Your task to perform on an android device: change alarm snooze length Image 0: 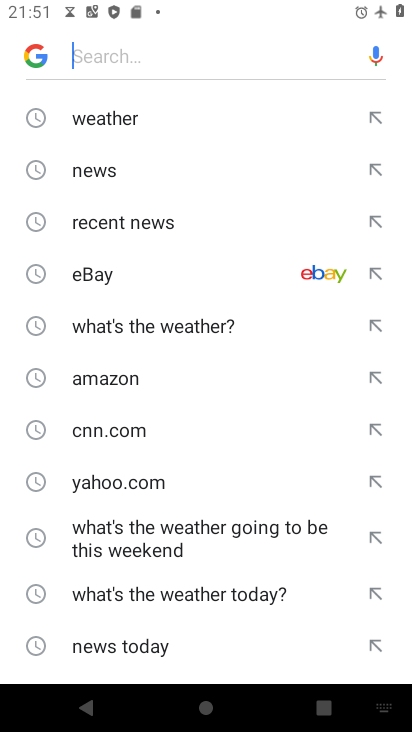
Step 0: press home button
Your task to perform on an android device: change alarm snooze length Image 1: 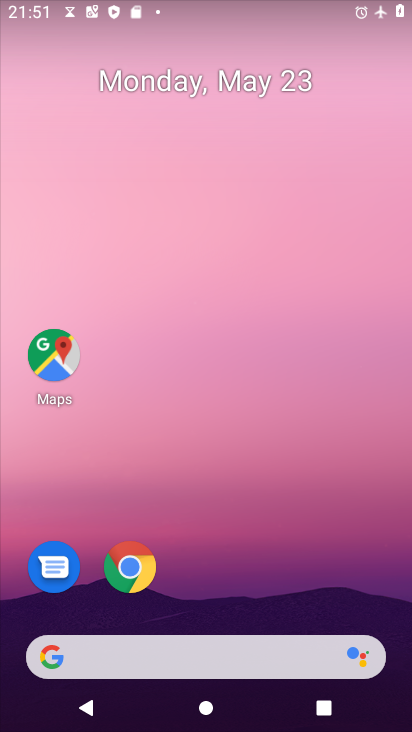
Step 1: drag from (248, 500) to (250, 301)
Your task to perform on an android device: change alarm snooze length Image 2: 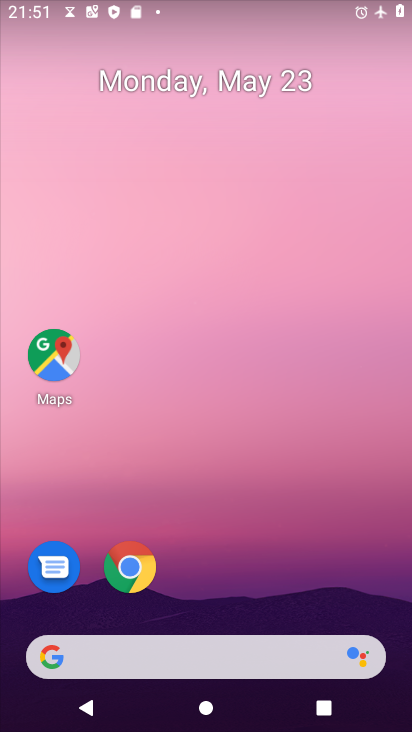
Step 2: drag from (227, 588) to (239, 257)
Your task to perform on an android device: change alarm snooze length Image 3: 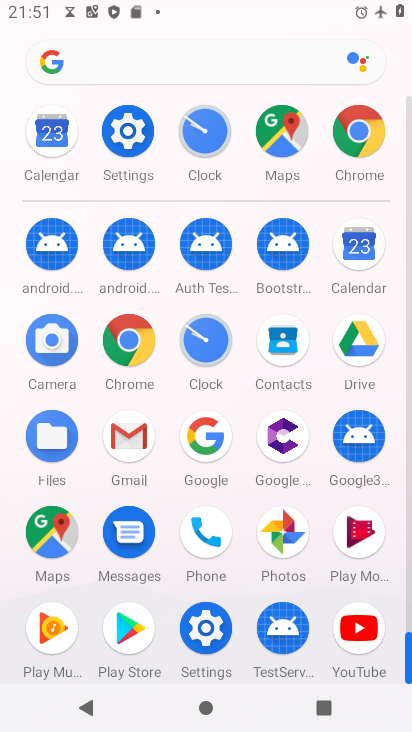
Step 3: click (129, 426)
Your task to perform on an android device: change alarm snooze length Image 4: 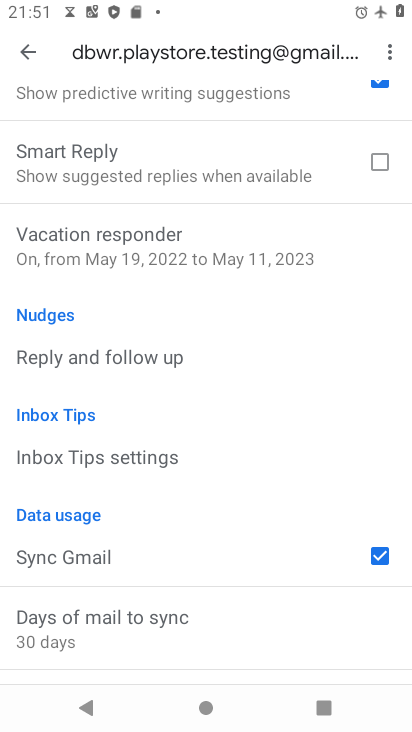
Step 4: drag from (241, 563) to (241, 631)
Your task to perform on an android device: change alarm snooze length Image 5: 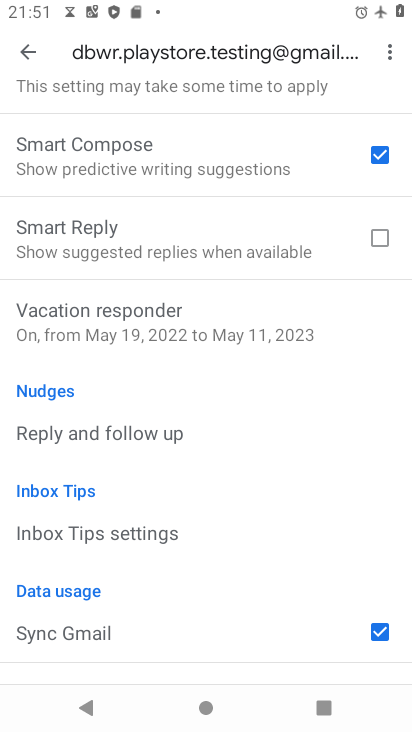
Step 5: drag from (211, 246) to (209, 469)
Your task to perform on an android device: change alarm snooze length Image 6: 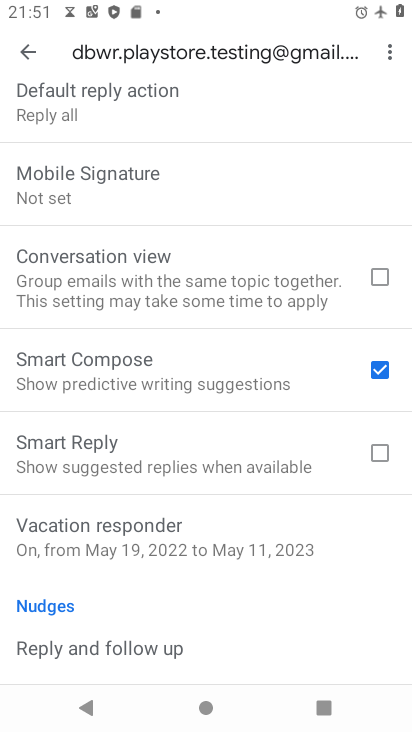
Step 6: click (36, 50)
Your task to perform on an android device: change alarm snooze length Image 7: 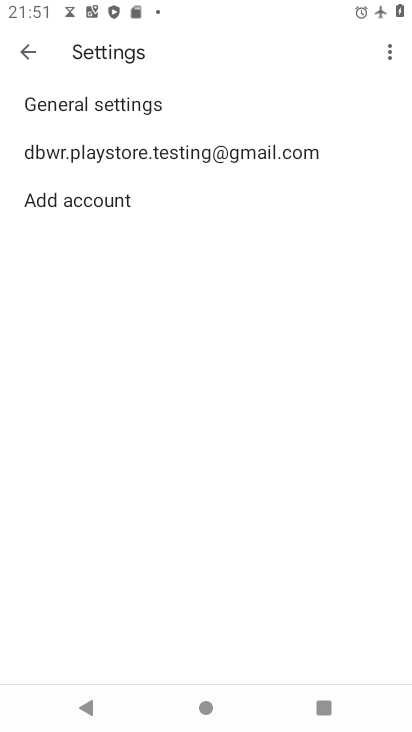
Step 7: click (37, 52)
Your task to perform on an android device: change alarm snooze length Image 8: 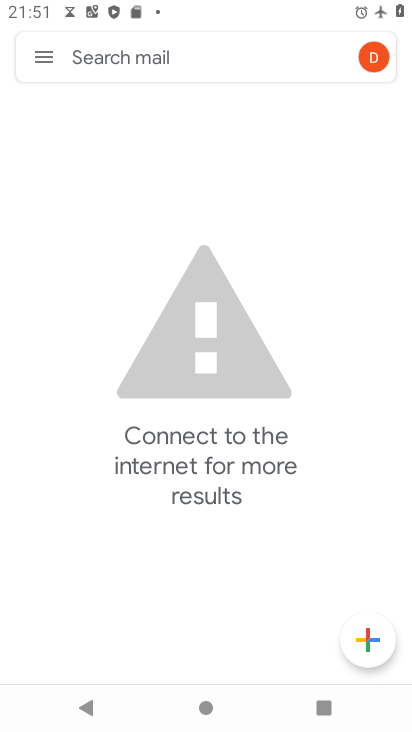
Step 8: click (38, 56)
Your task to perform on an android device: change alarm snooze length Image 9: 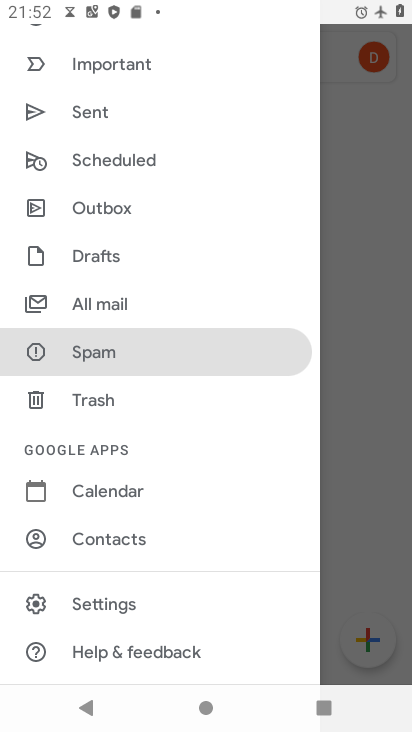
Step 9: drag from (146, 207) to (165, 421)
Your task to perform on an android device: change alarm snooze length Image 10: 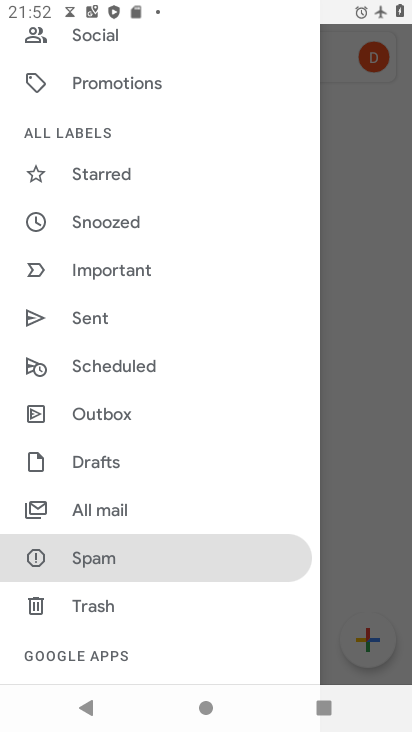
Step 10: click (121, 217)
Your task to perform on an android device: change alarm snooze length Image 11: 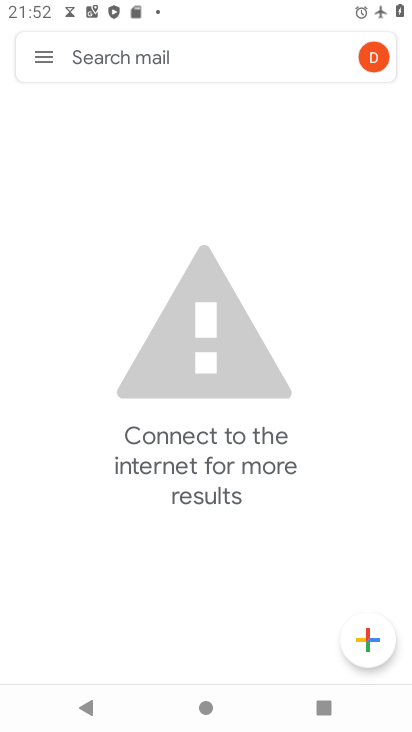
Step 11: task complete